Your task to perform on an android device: What's the weather going to be tomorrow? Image 0: 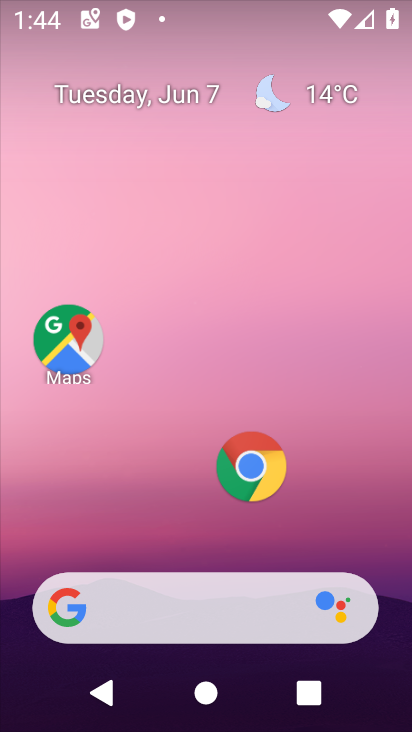
Step 0: click (150, 629)
Your task to perform on an android device: What's the weather going to be tomorrow? Image 1: 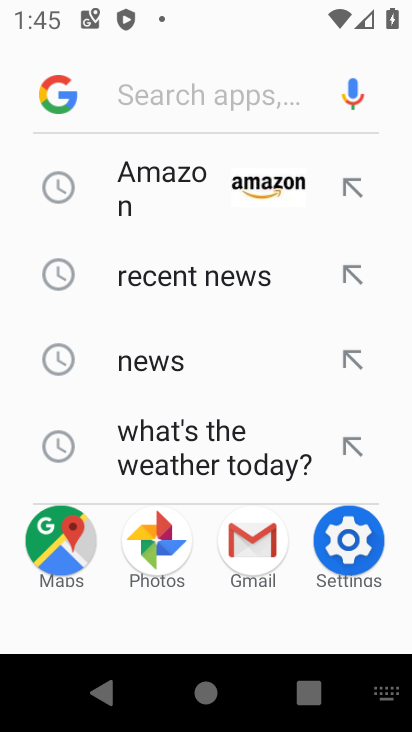
Step 1: type "weather tomorrow"
Your task to perform on an android device: What's the weather going to be tomorrow? Image 2: 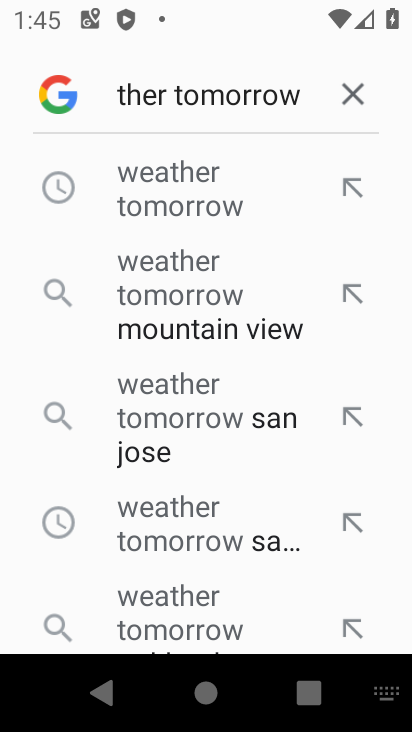
Step 2: click (96, 176)
Your task to perform on an android device: What's the weather going to be tomorrow? Image 3: 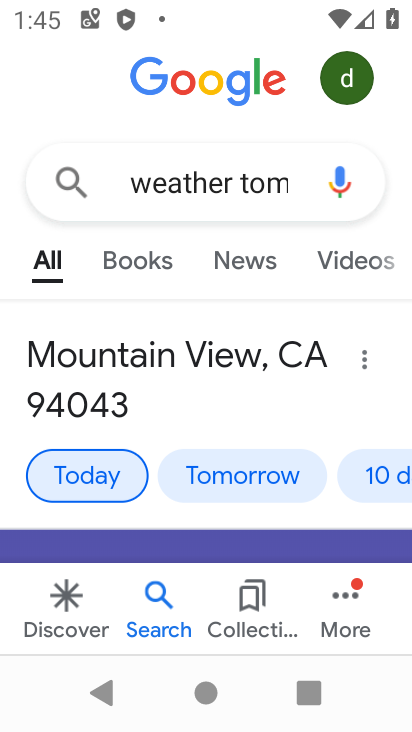
Step 3: drag from (245, 518) to (257, 169)
Your task to perform on an android device: What's the weather going to be tomorrow? Image 4: 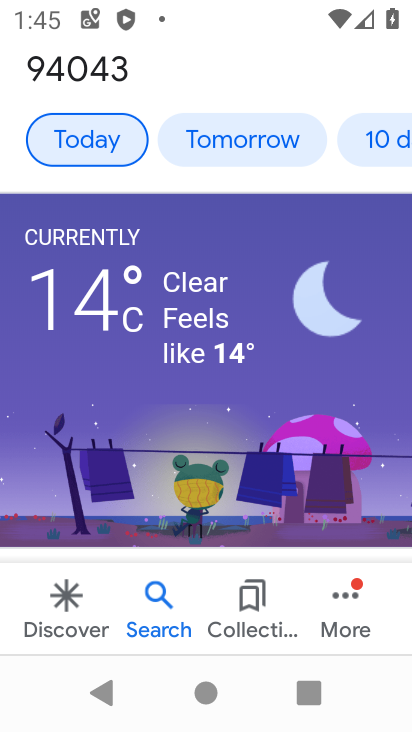
Step 4: click (240, 142)
Your task to perform on an android device: What's the weather going to be tomorrow? Image 5: 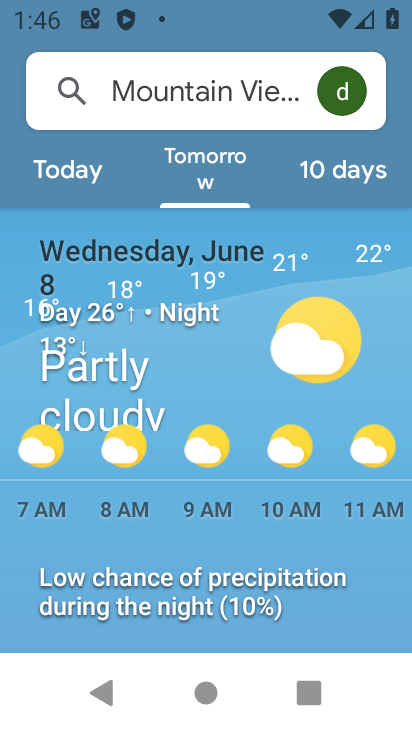
Step 5: task complete